Your task to perform on an android device: Go to calendar. Show me events next week Image 0: 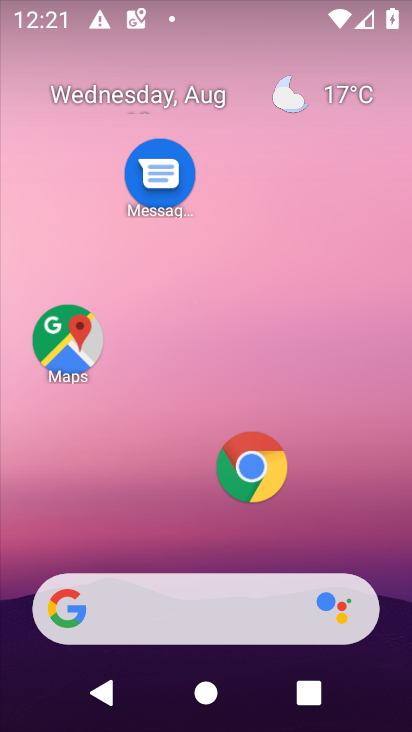
Step 0: click (147, 94)
Your task to perform on an android device: Go to calendar. Show me events next week Image 1: 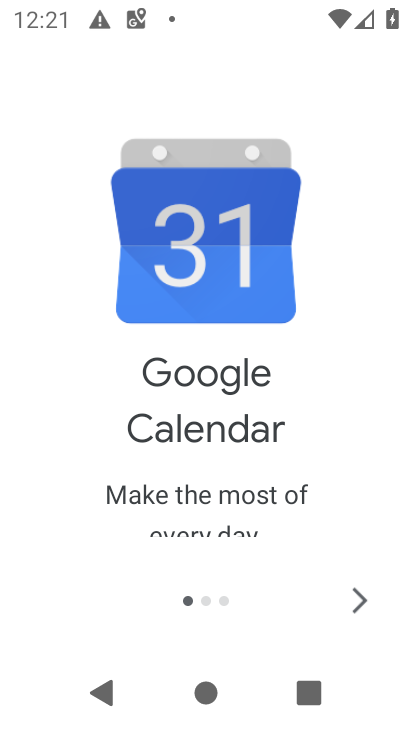
Step 1: click (365, 609)
Your task to perform on an android device: Go to calendar. Show me events next week Image 2: 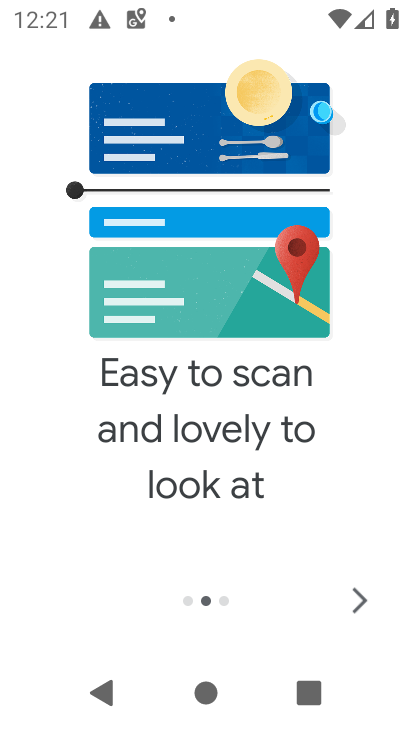
Step 2: click (365, 609)
Your task to perform on an android device: Go to calendar. Show me events next week Image 3: 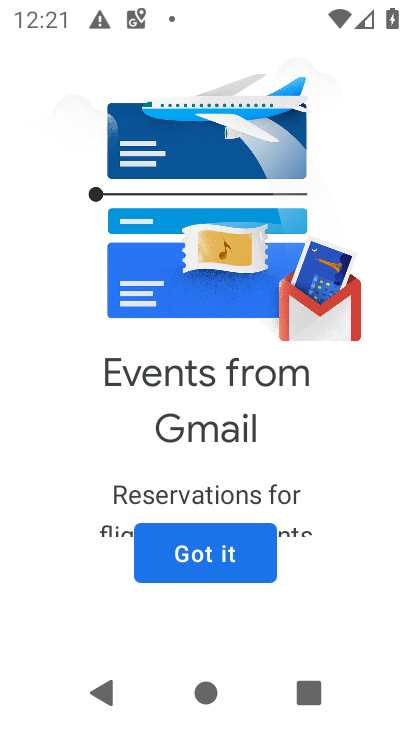
Step 3: click (215, 563)
Your task to perform on an android device: Go to calendar. Show me events next week Image 4: 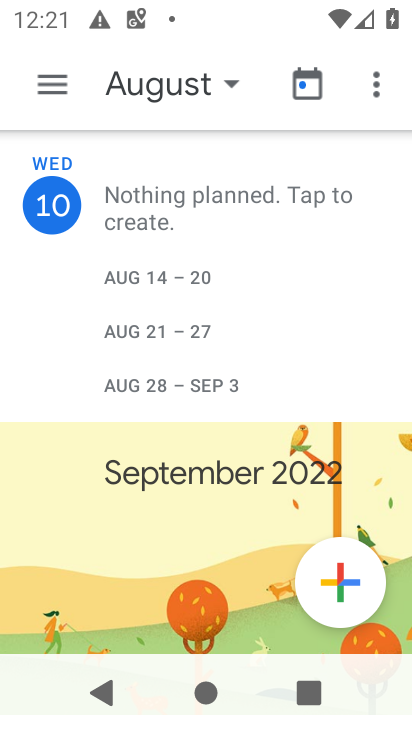
Step 4: click (70, 112)
Your task to perform on an android device: Go to calendar. Show me events next week Image 5: 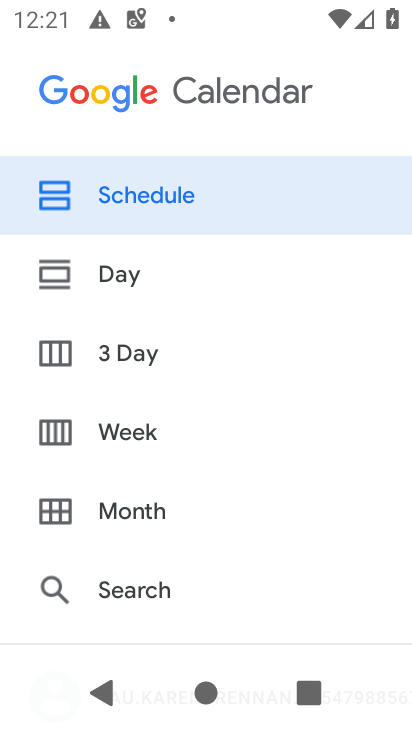
Step 5: click (136, 439)
Your task to perform on an android device: Go to calendar. Show me events next week Image 6: 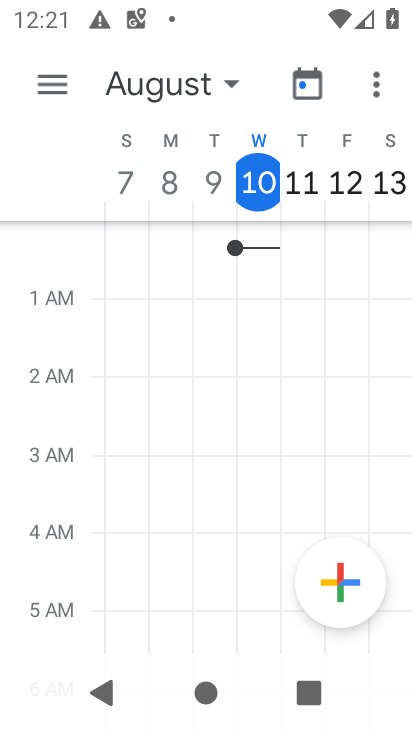
Step 6: task complete